Your task to perform on an android device: Go to Yahoo.com Image 0: 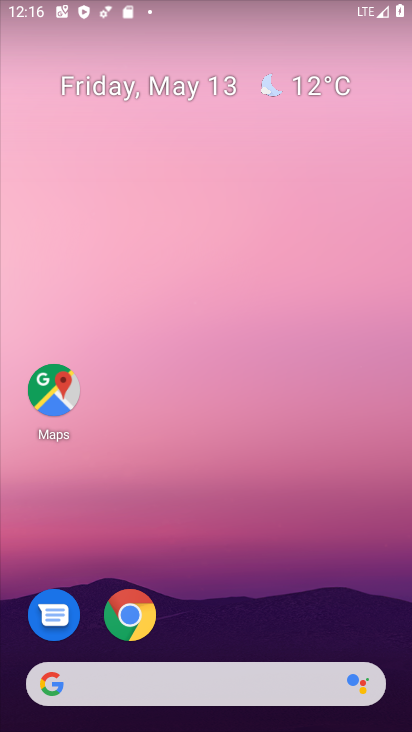
Step 0: click (122, 635)
Your task to perform on an android device: Go to Yahoo.com Image 1: 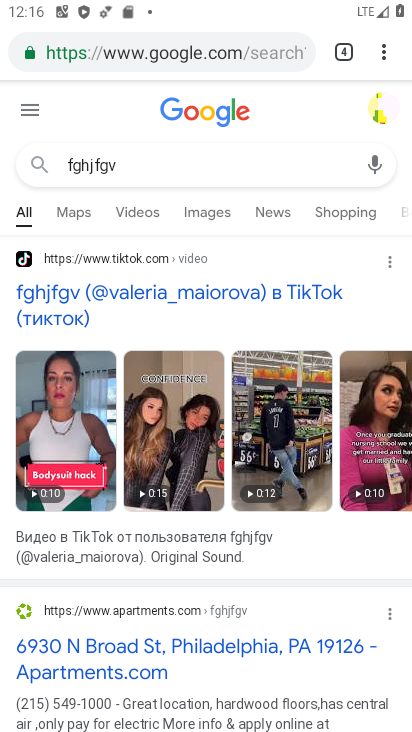
Step 1: click (348, 54)
Your task to perform on an android device: Go to Yahoo.com Image 2: 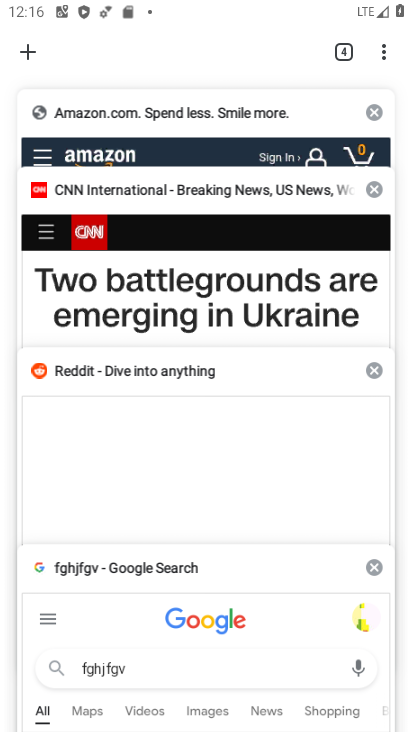
Step 2: drag from (175, 454) to (183, 261)
Your task to perform on an android device: Go to Yahoo.com Image 3: 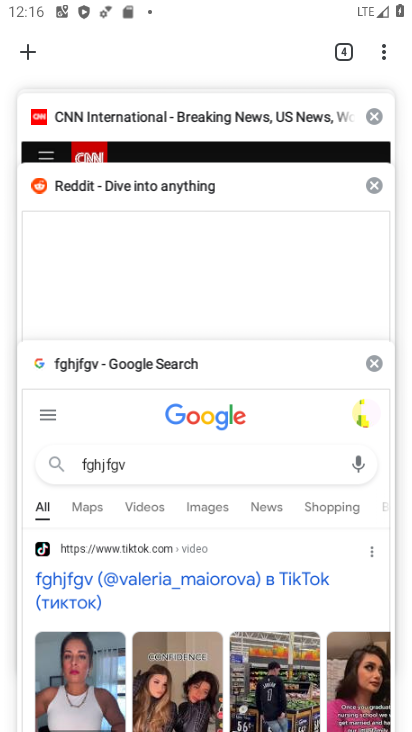
Step 3: drag from (142, 591) to (158, 242)
Your task to perform on an android device: Go to Yahoo.com Image 4: 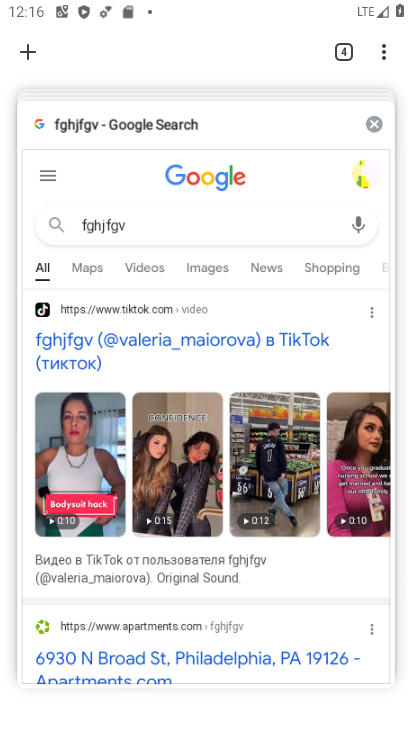
Step 4: drag from (160, 572) to (154, 313)
Your task to perform on an android device: Go to Yahoo.com Image 5: 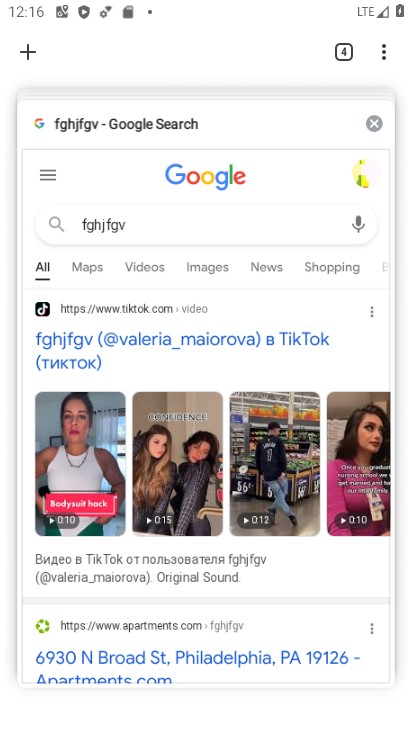
Step 5: click (28, 46)
Your task to perform on an android device: Go to Yahoo.com Image 6: 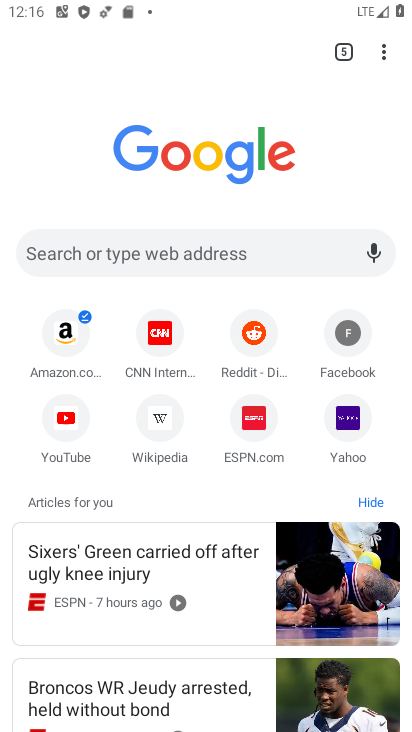
Step 6: click (350, 421)
Your task to perform on an android device: Go to Yahoo.com Image 7: 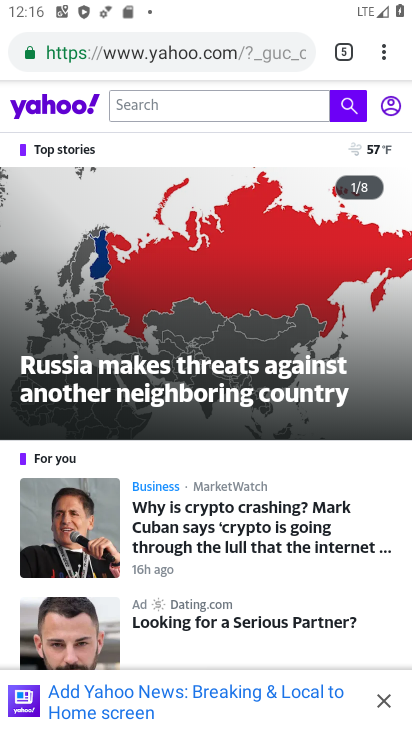
Step 7: task complete